Your task to perform on an android device: empty trash in google photos Image 0: 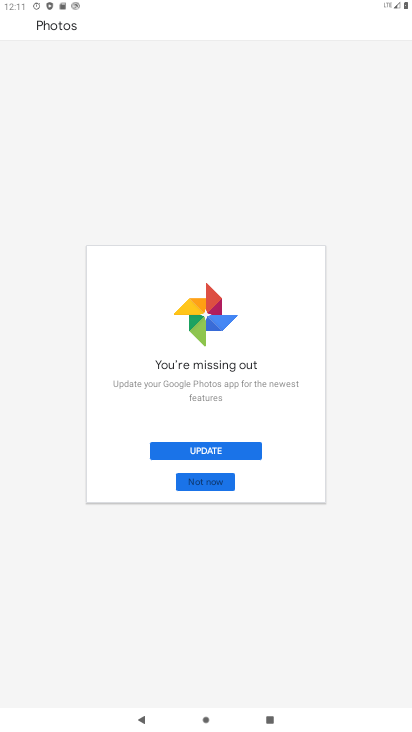
Step 0: press back button
Your task to perform on an android device: empty trash in google photos Image 1: 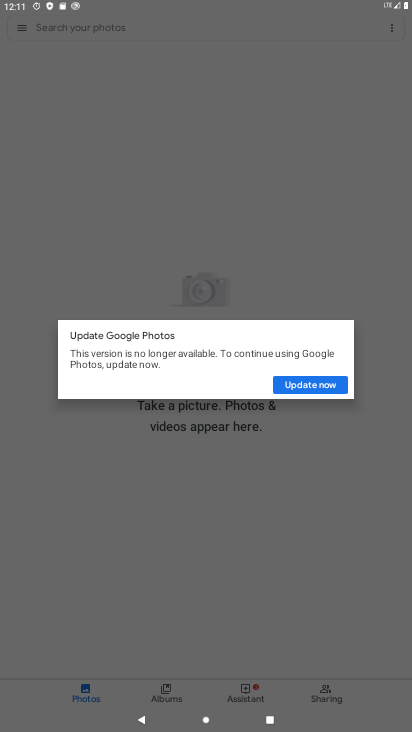
Step 1: press home button
Your task to perform on an android device: empty trash in google photos Image 2: 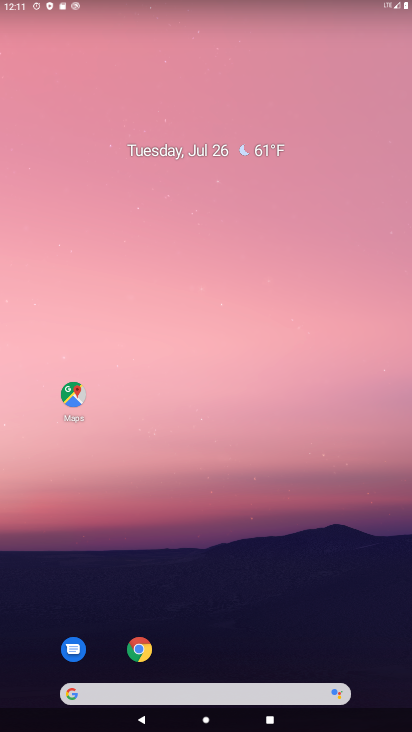
Step 2: drag from (194, 677) to (182, 37)
Your task to perform on an android device: empty trash in google photos Image 3: 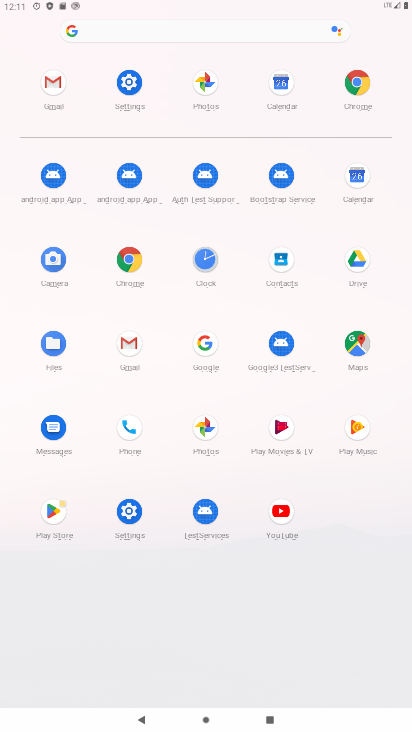
Step 3: click (208, 421)
Your task to perform on an android device: empty trash in google photos Image 4: 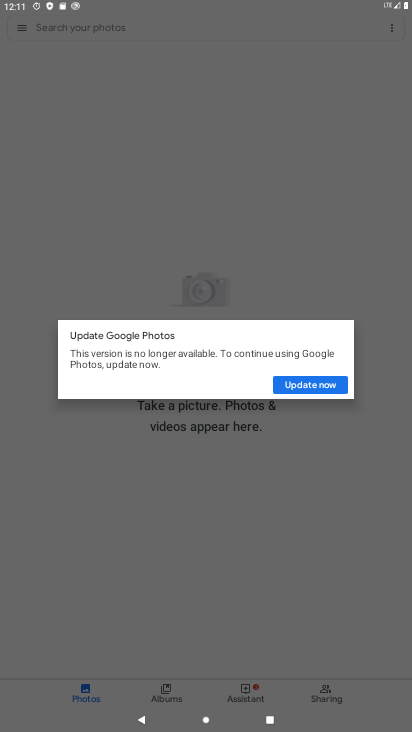
Step 4: click (284, 365)
Your task to perform on an android device: empty trash in google photos Image 5: 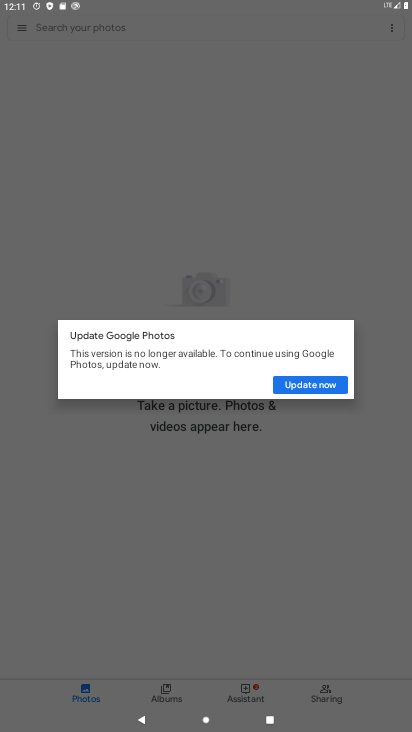
Step 5: click (314, 384)
Your task to perform on an android device: empty trash in google photos Image 6: 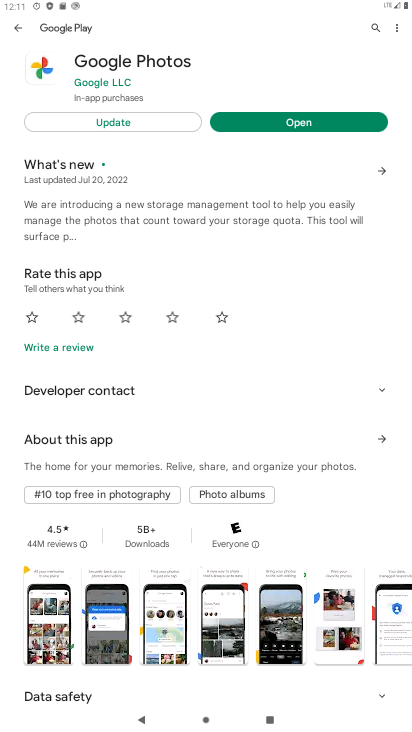
Step 6: click (230, 112)
Your task to perform on an android device: empty trash in google photos Image 7: 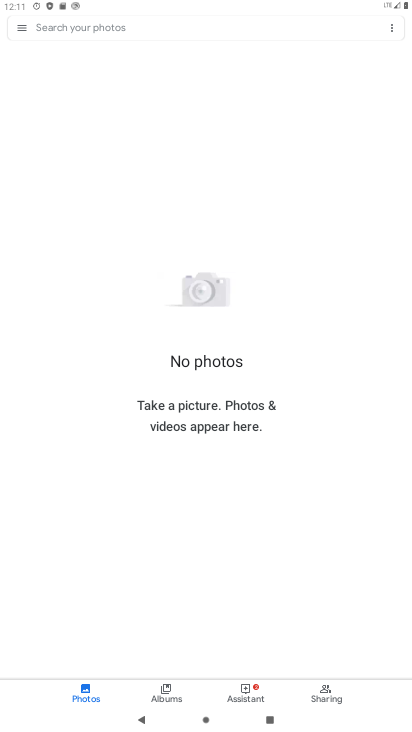
Step 7: click (19, 24)
Your task to perform on an android device: empty trash in google photos Image 8: 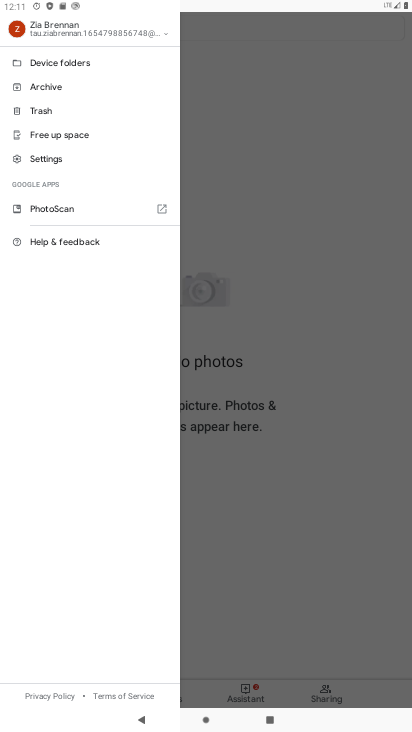
Step 8: click (37, 110)
Your task to perform on an android device: empty trash in google photos Image 9: 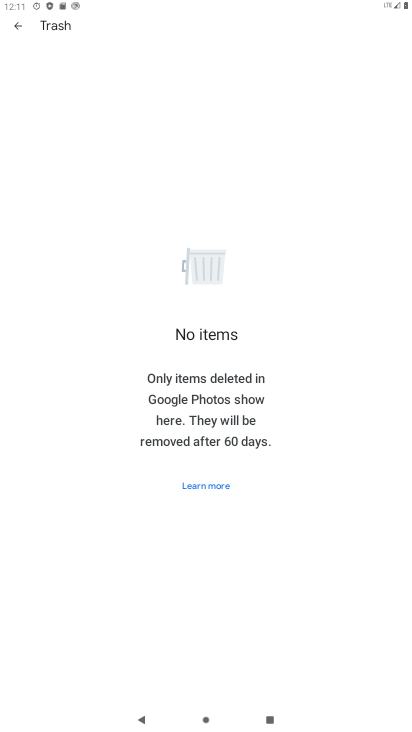
Step 9: task complete